Your task to perform on an android device: change your default location settings in chrome Image 0: 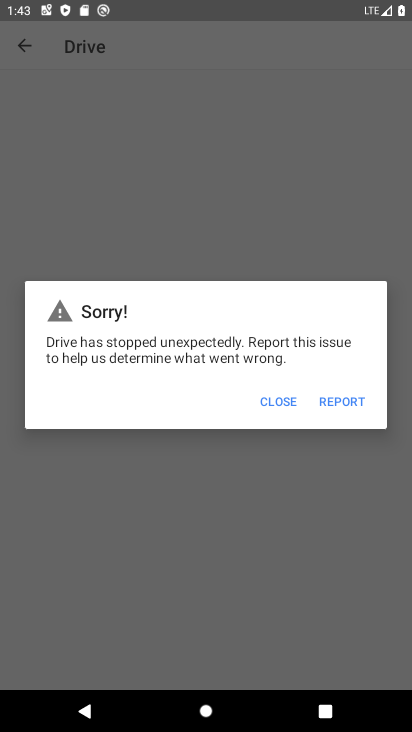
Step 0: click (280, 402)
Your task to perform on an android device: change your default location settings in chrome Image 1: 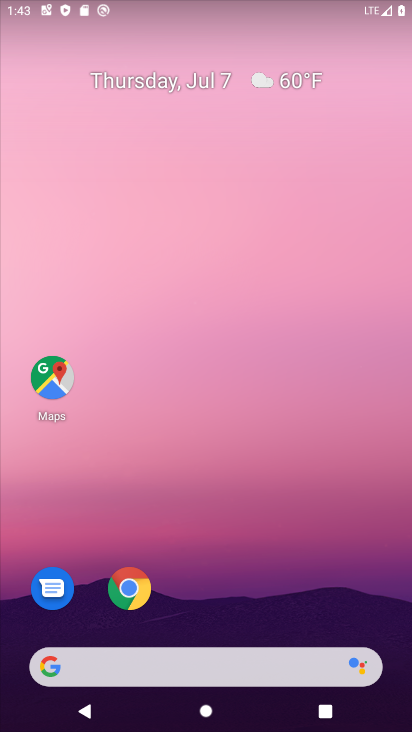
Step 1: drag from (215, 627) to (212, 339)
Your task to perform on an android device: change your default location settings in chrome Image 2: 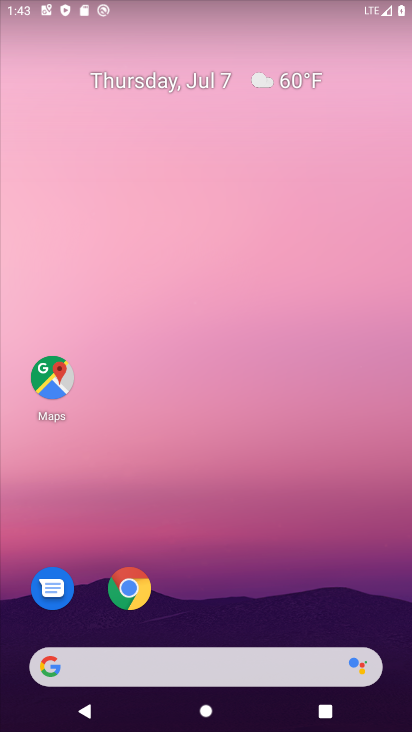
Step 2: drag from (316, 638) to (292, 221)
Your task to perform on an android device: change your default location settings in chrome Image 3: 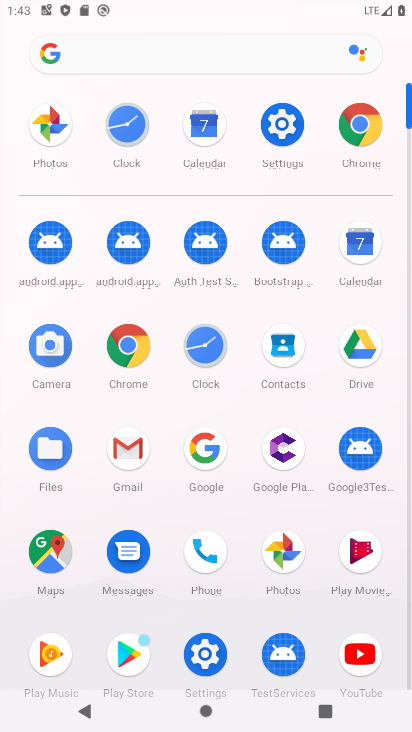
Step 3: click (373, 124)
Your task to perform on an android device: change your default location settings in chrome Image 4: 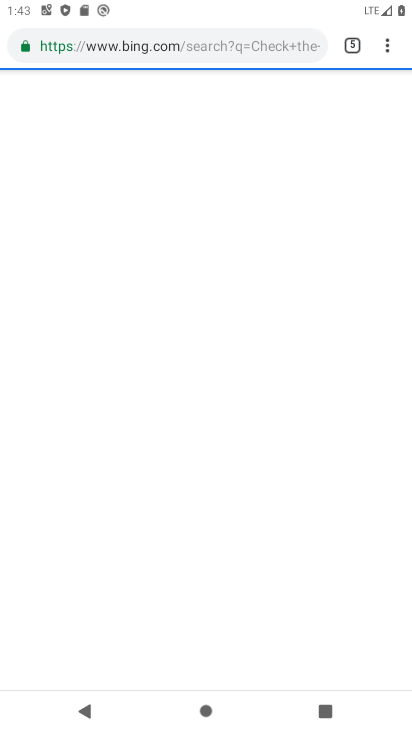
Step 4: click (379, 40)
Your task to perform on an android device: change your default location settings in chrome Image 5: 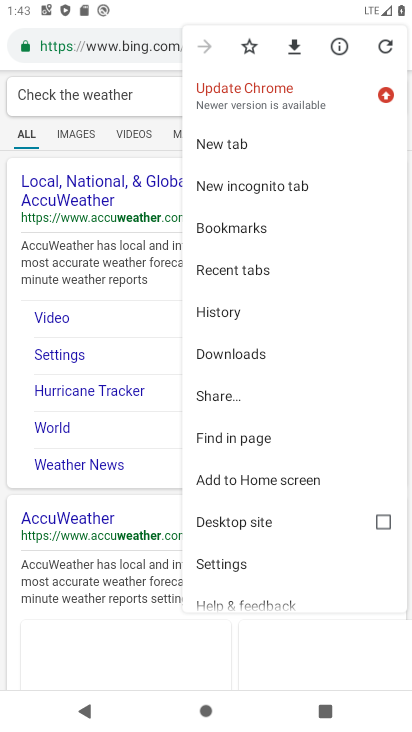
Step 5: click (260, 562)
Your task to perform on an android device: change your default location settings in chrome Image 6: 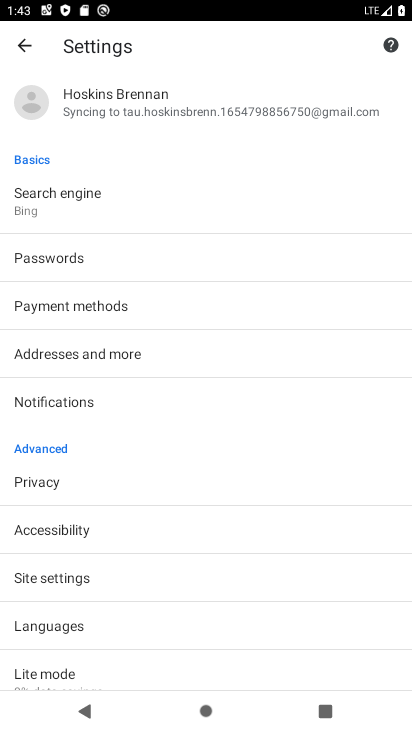
Step 6: drag from (80, 628) to (162, 303)
Your task to perform on an android device: change your default location settings in chrome Image 7: 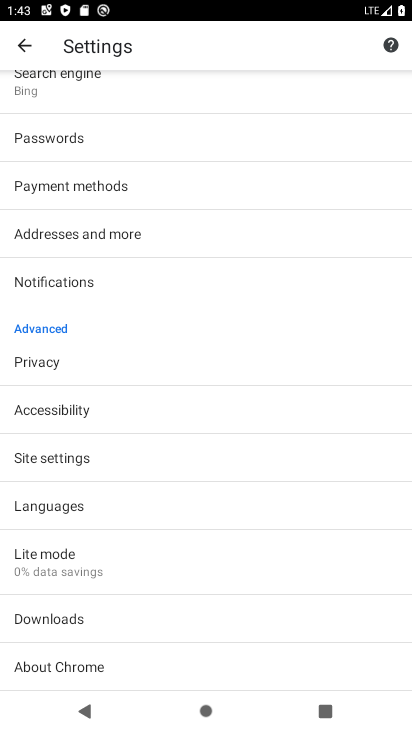
Step 7: drag from (89, 636) to (128, 401)
Your task to perform on an android device: change your default location settings in chrome Image 8: 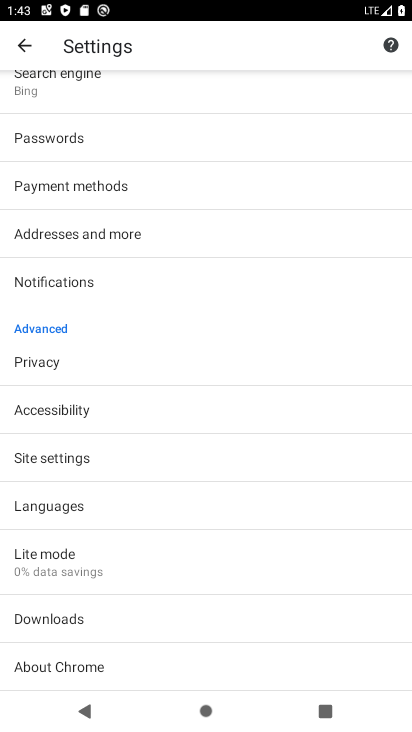
Step 8: drag from (170, 253) to (177, 512)
Your task to perform on an android device: change your default location settings in chrome Image 9: 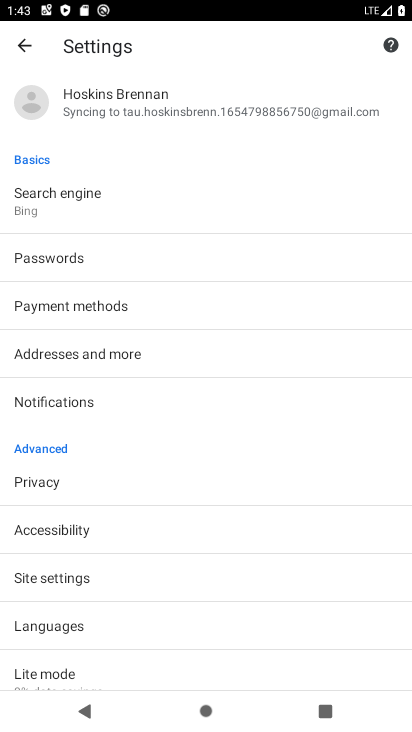
Step 9: drag from (163, 563) to (266, 79)
Your task to perform on an android device: change your default location settings in chrome Image 10: 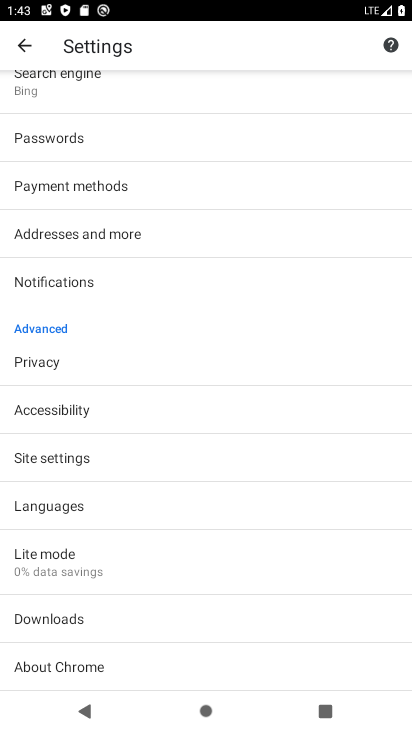
Step 10: click (114, 453)
Your task to perform on an android device: change your default location settings in chrome Image 11: 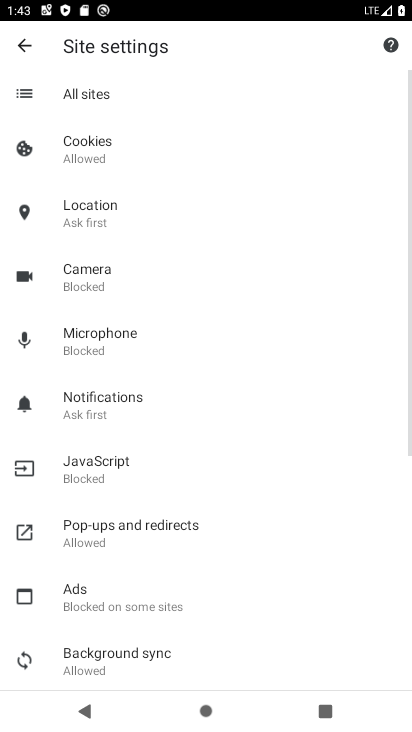
Step 11: click (116, 208)
Your task to perform on an android device: change your default location settings in chrome Image 12: 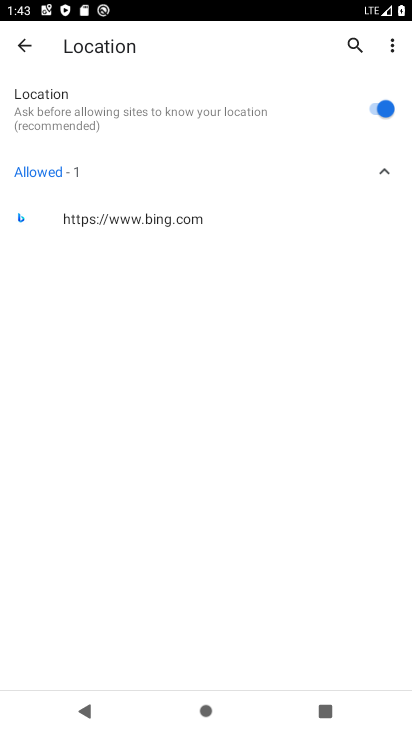
Step 12: click (363, 118)
Your task to perform on an android device: change your default location settings in chrome Image 13: 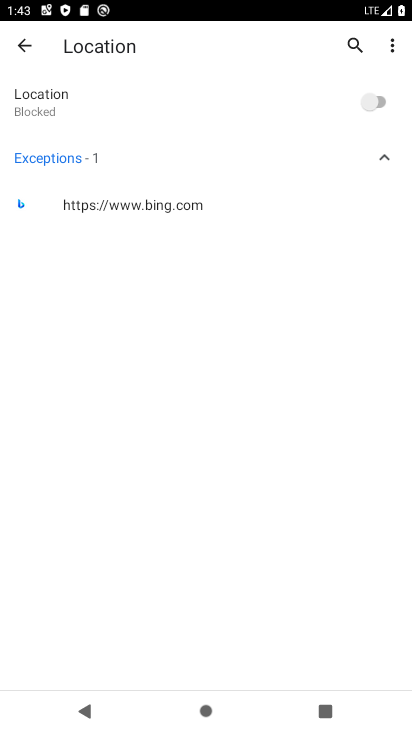
Step 13: task complete